Your task to perform on an android device: Open Maps and search for coffee Image 0: 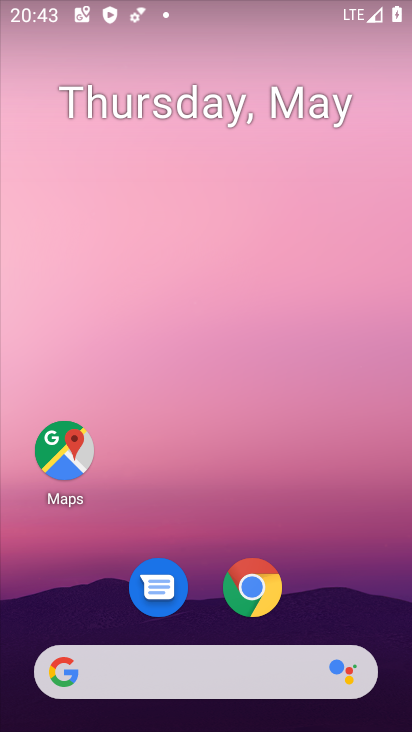
Step 0: click (85, 475)
Your task to perform on an android device: Open Maps and search for coffee Image 1: 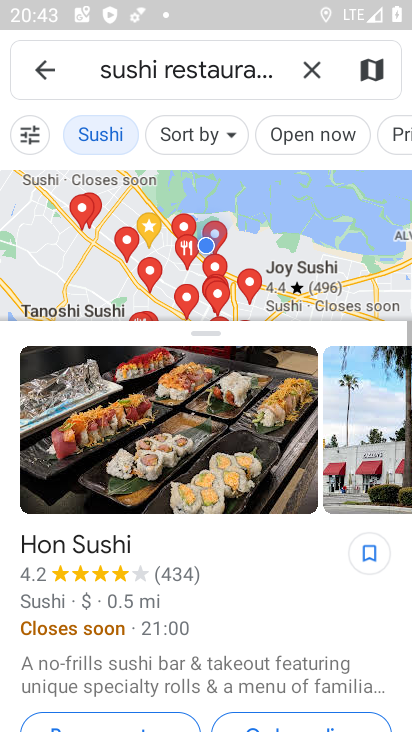
Step 1: click (301, 66)
Your task to perform on an android device: Open Maps and search for coffee Image 2: 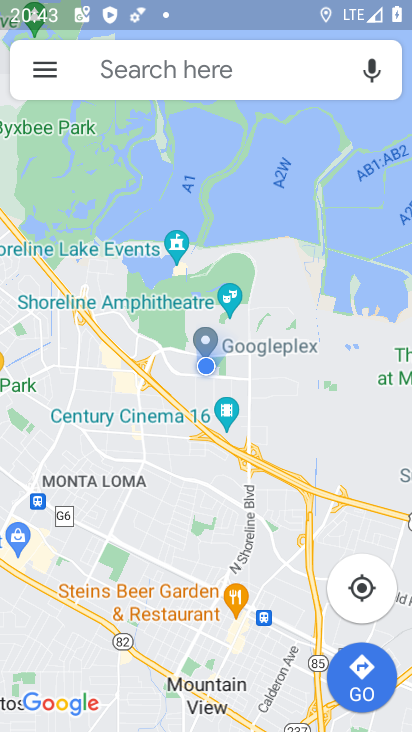
Step 2: type "coffee"
Your task to perform on an android device: Open Maps and search for coffee Image 3: 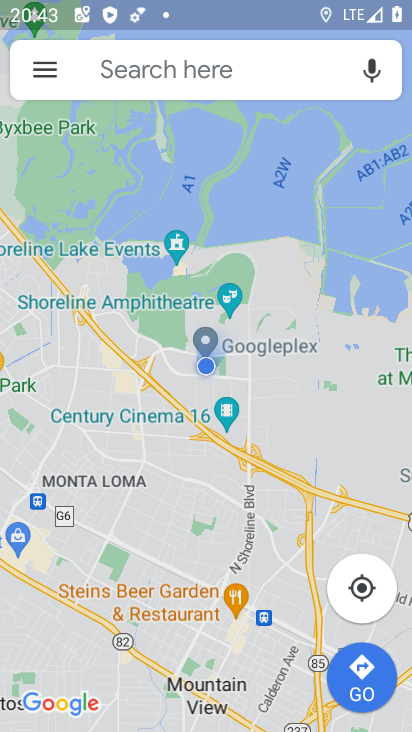
Step 3: click (151, 37)
Your task to perform on an android device: Open Maps and search for coffee Image 4: 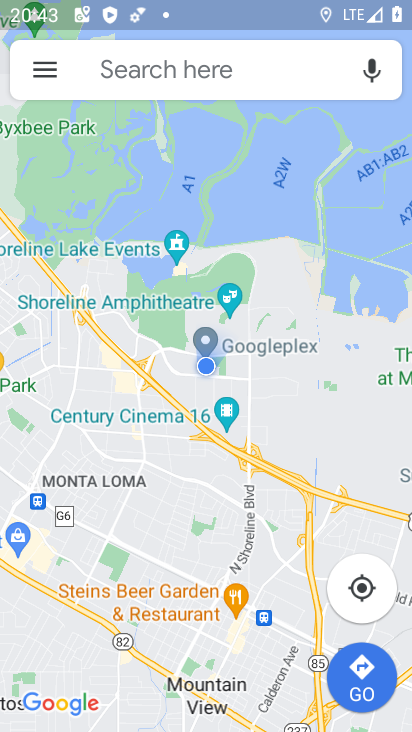
Step 4: click (154, 72)
Your task to perform on an android device: Open Maps and search for coffee Image 5: 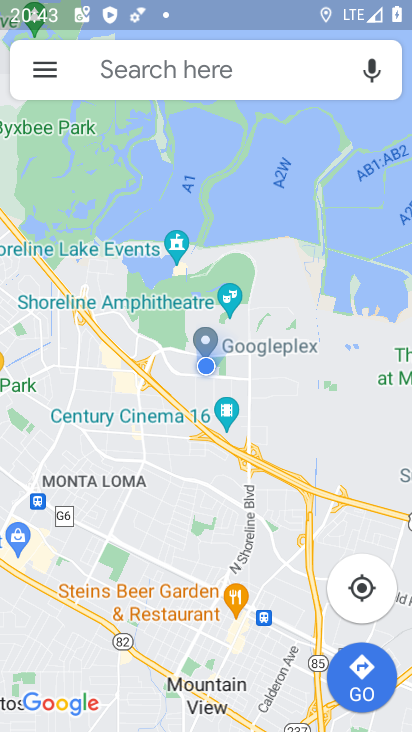
Step 5: click (117, 77)
Your task to perform on an android device: Open Maps and search for coffee Image 6: 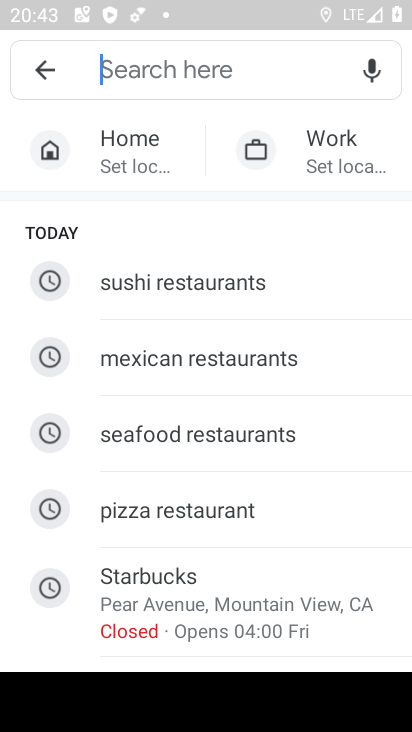
Step 6: type "coffee"
Your task to perform on an android device: Open Maps and search for coffee Image 7: 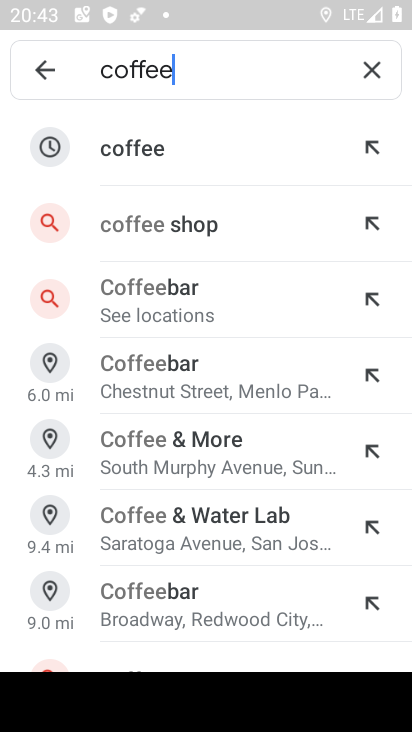
Step 7: click (197, 144)
Your task to perform on an android device: Open Maps and search for coffee Image 8: 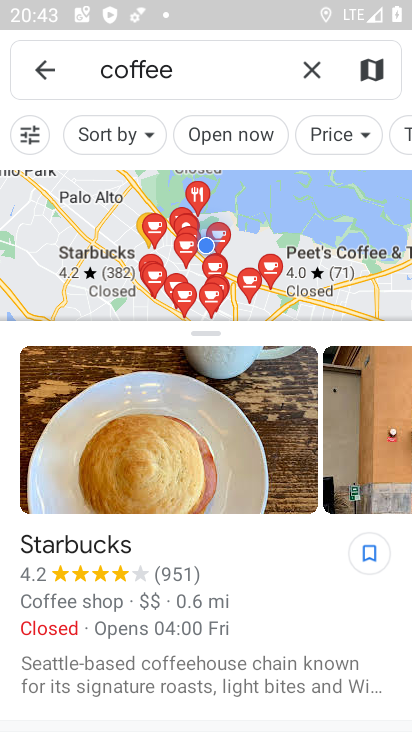
Step 8: task complete